Your task to perform on an android device: When is my next appointment? Image 0: 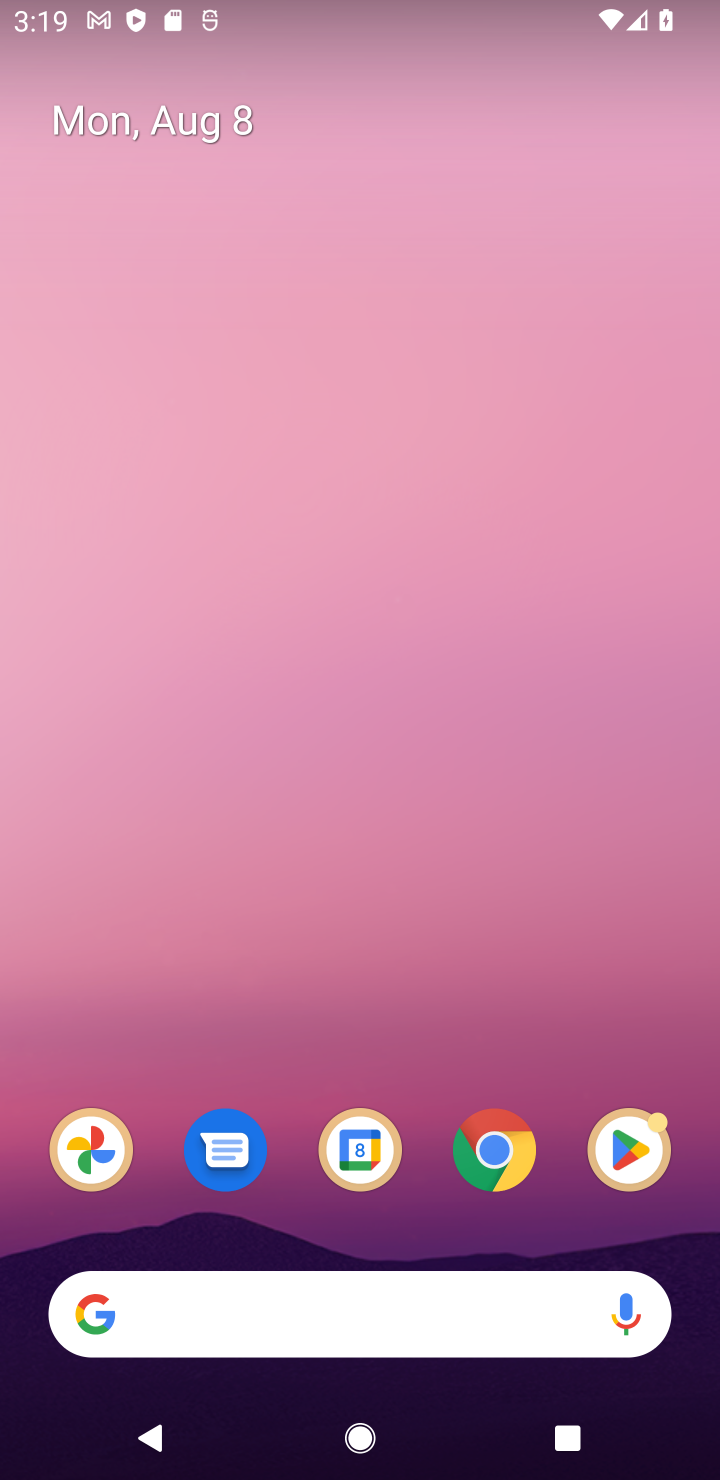
Step 0: drag from (438, 1229) to (293, 13)
Your task to perform on an android device: When is my next appointment? Image 1: 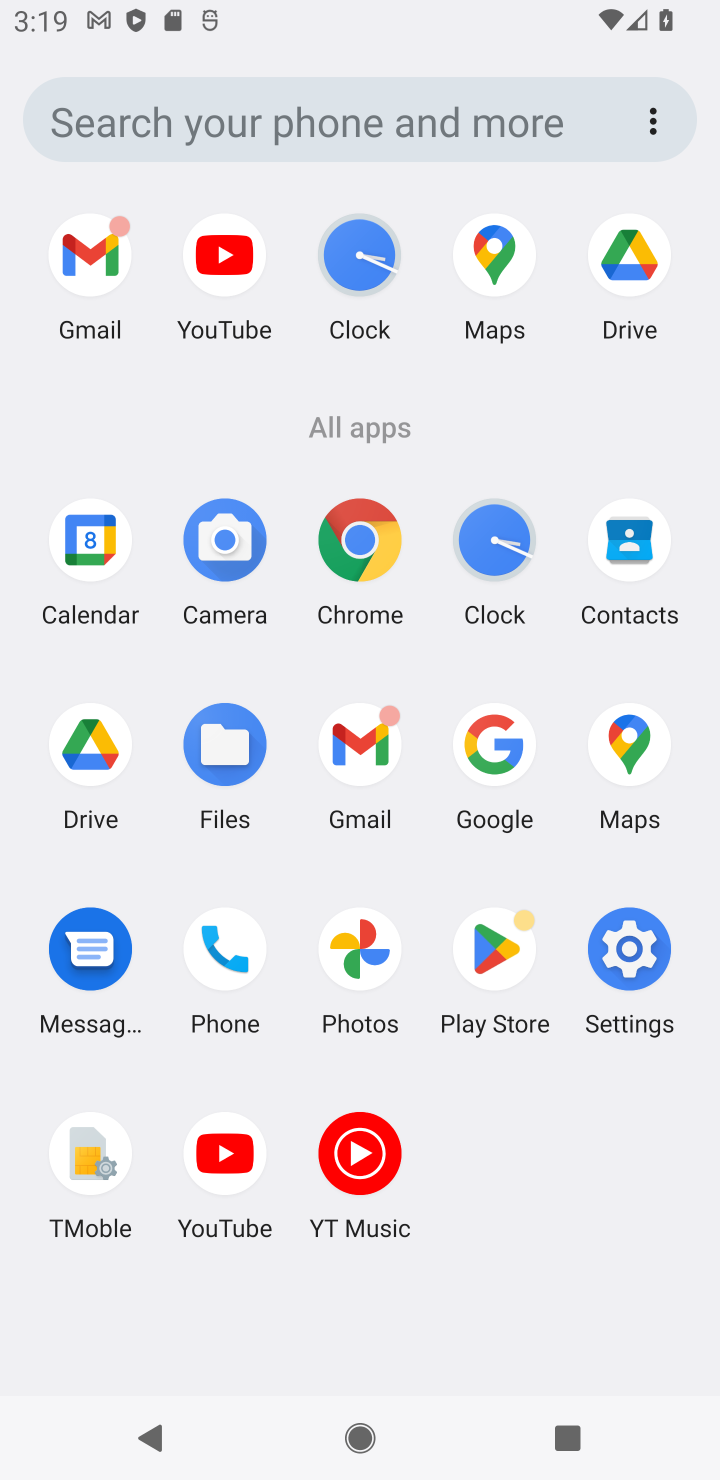
Step 1: click (115, 583)
Your task to perform on an android device: When is my next appointment? Image 2: 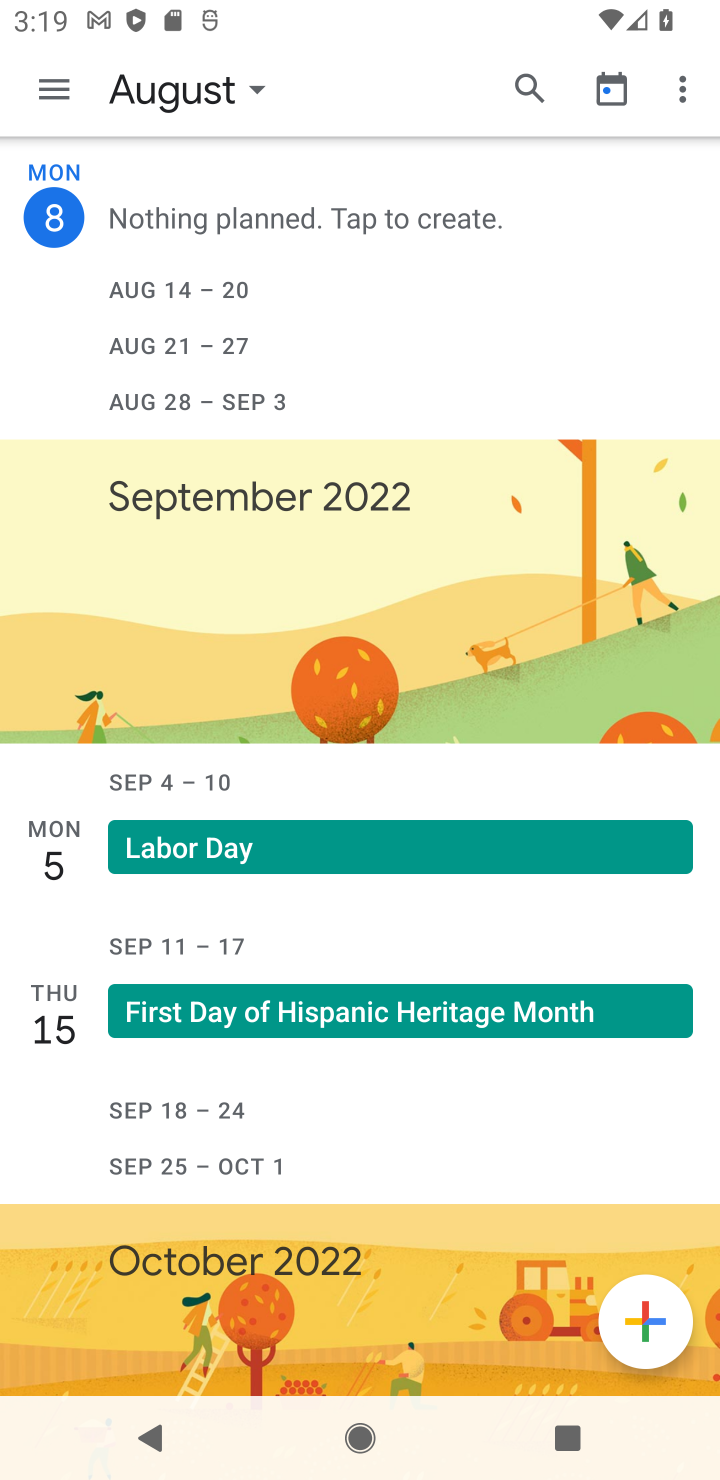
Step 2: press home button
Your task to perform on an android device: When is my next appointment? Image 3: 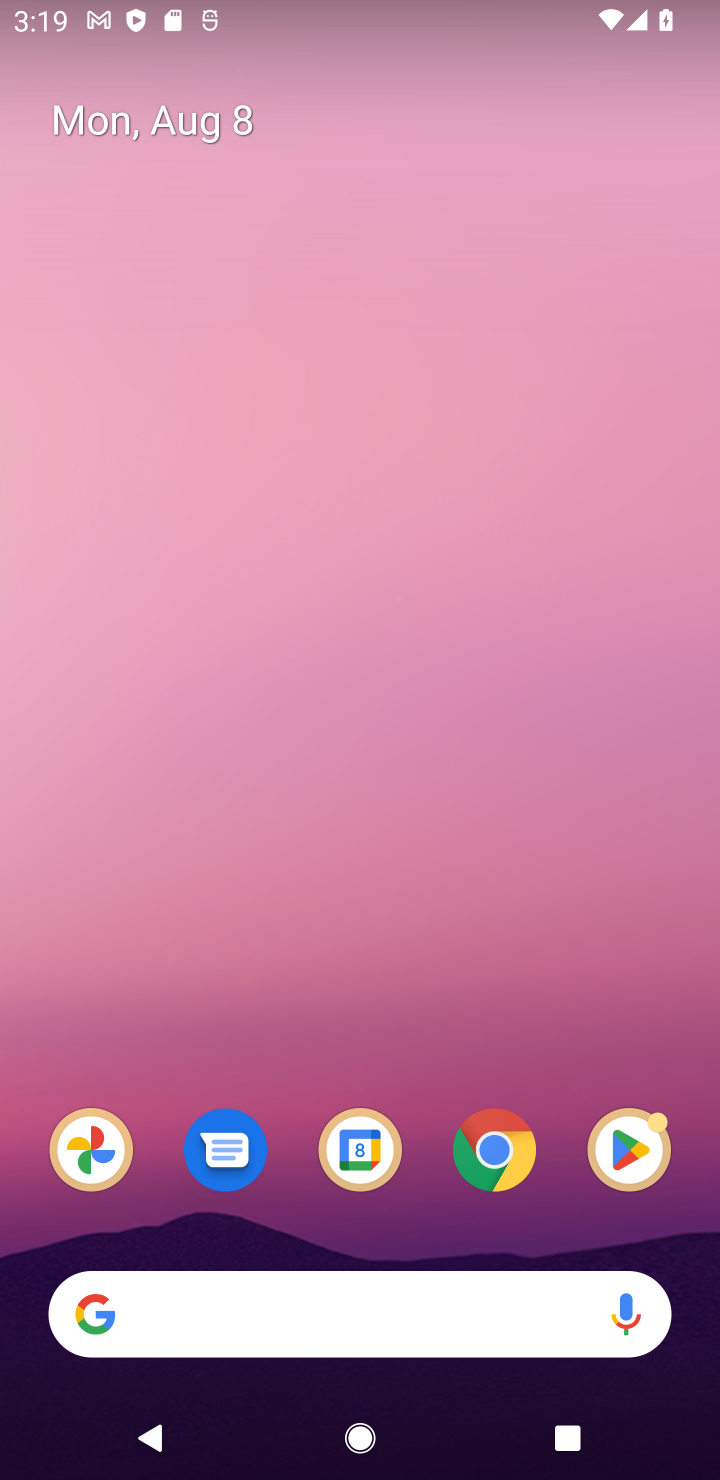
Step 3: drag from (444, 1236) to (334, 247)
Your task to perform on an android device: When is my next appointment? Image 4: 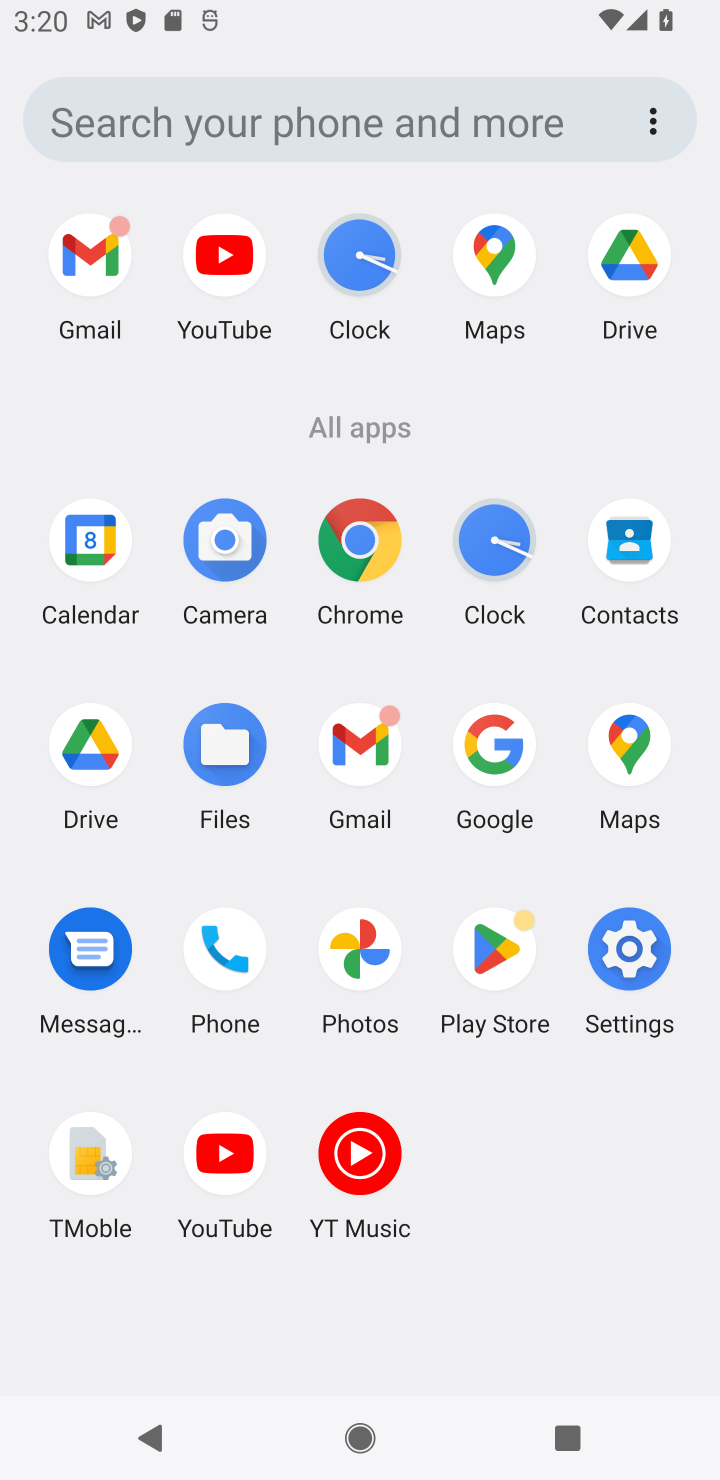
Step 4: click (109, 578)
Your task to perform on an android device: When is my next appointment? Image 5: 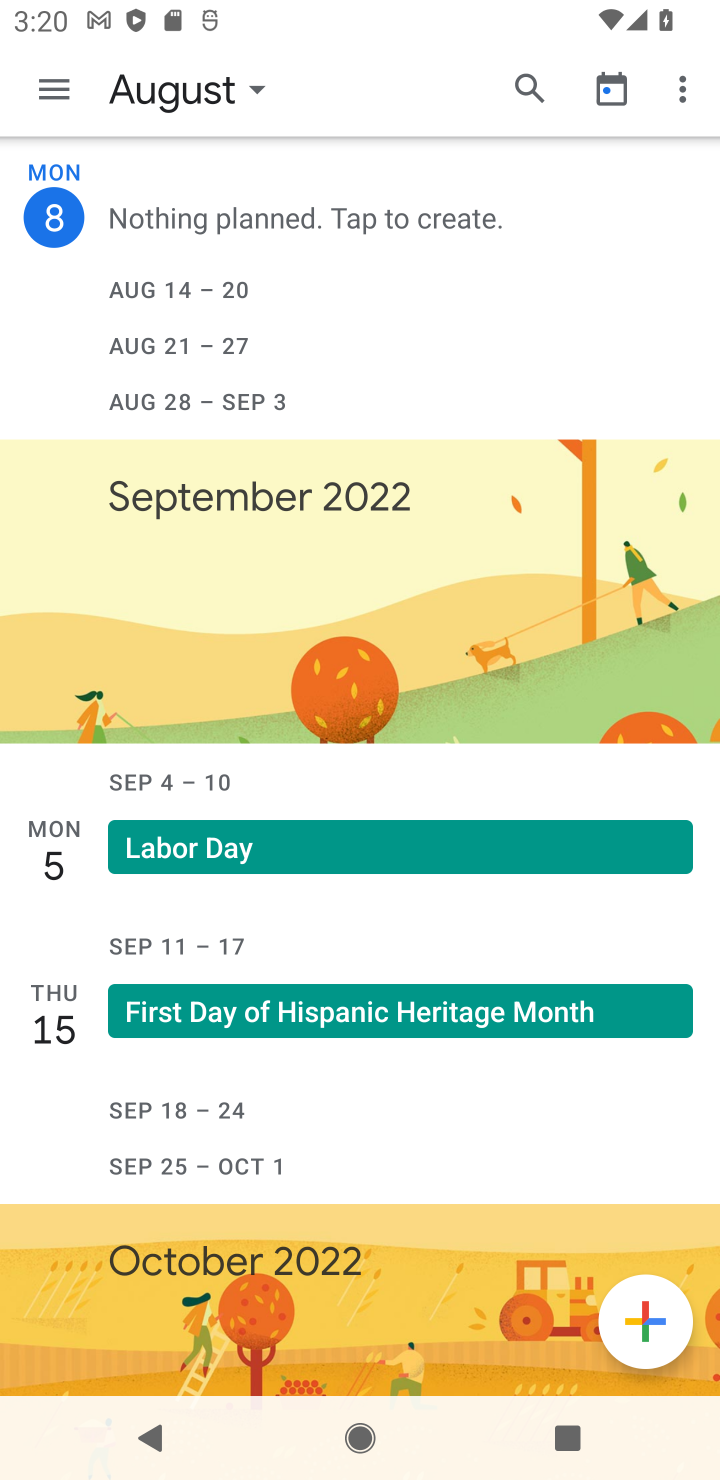
Step 5: task complete